Your task to perform on an android device: When is my next meeting? Image 0: 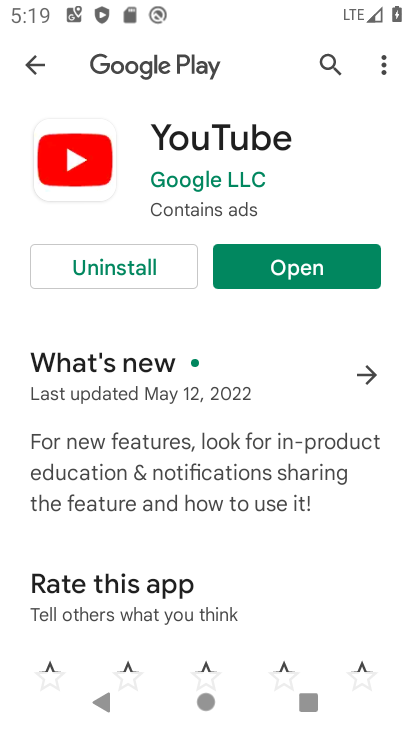
Step 0: press home button
Your task to perform on an android device: When is my next meeting? Image 1: 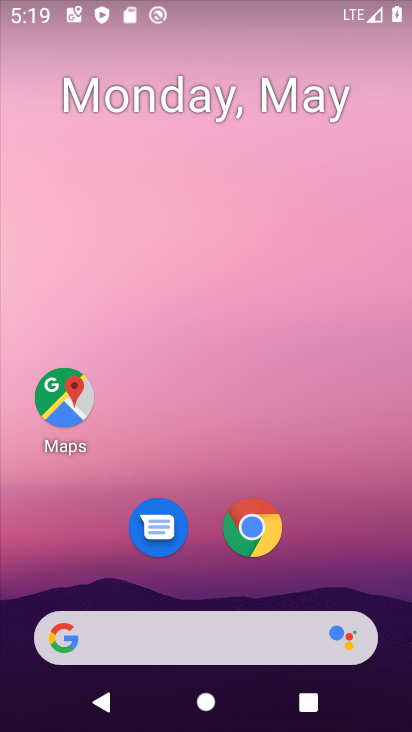
Step 1: drag from (399, 680) to (359, 199)
Your task to perform on an android device: When is my next meeting? Image 2: 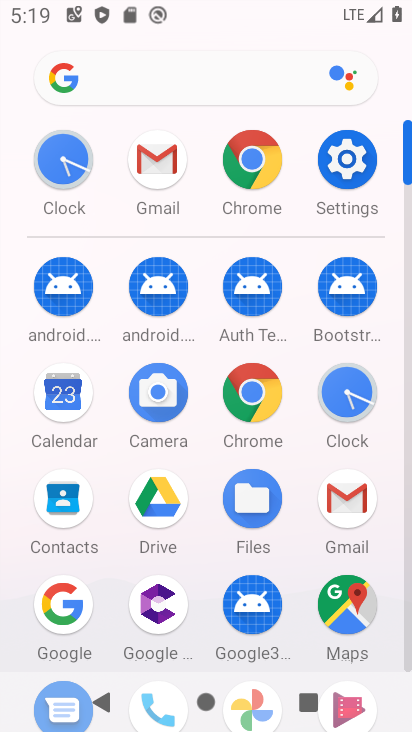
Step 2: click (68, 405)
Your task to perform on an android device: When is my next meeting? Image 3: 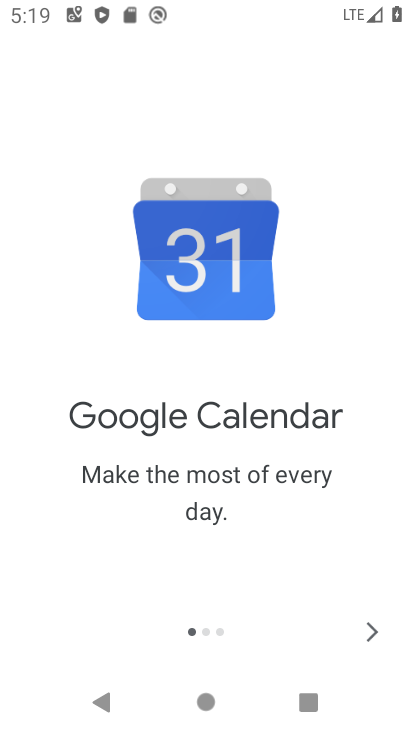
Step 3: click (370, 627)
Your task to perform on an android device: When is my next meeting? Image 4: 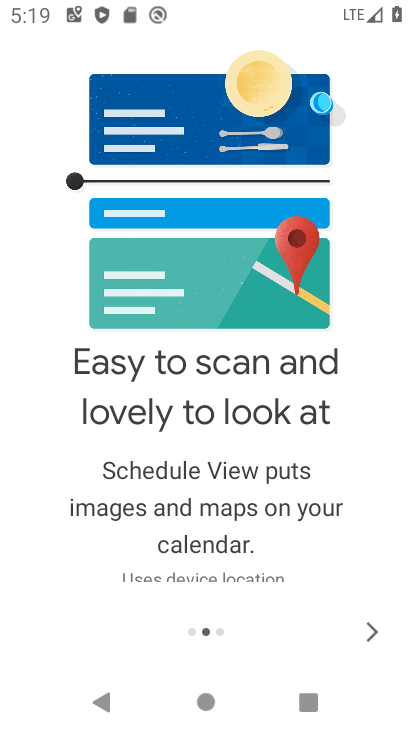
Step 4: click (370, 627)
Your task to perform on an android device: When is my next meeting? Image 5: 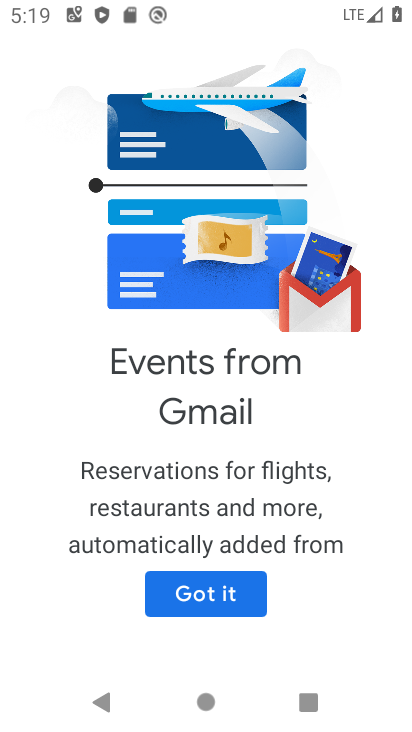
Step 5: click (196, 582)
Your task to perform on an android device: When is my next meeting? Image 6: 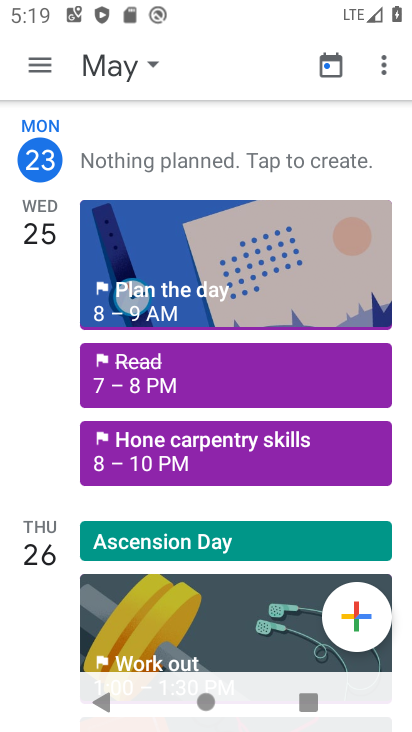
Step 6: click (42, 60)
Your task to perform on an android device: When is my next meeting? Image 7: 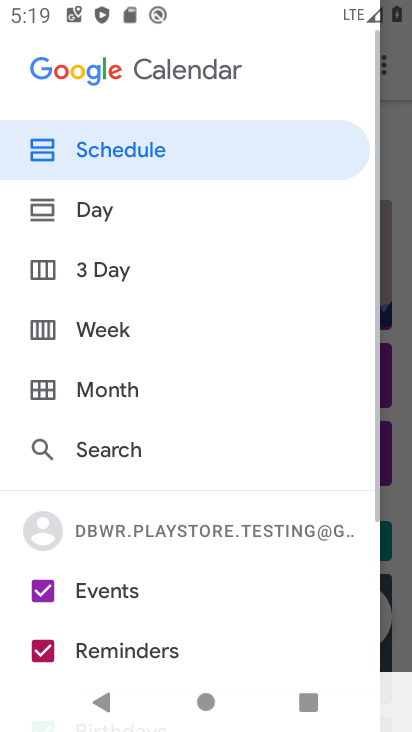
Step 7: drag from (209, 640) to (226, 229)
Your task to perform on an android device: When is my next meeting? Image 8: 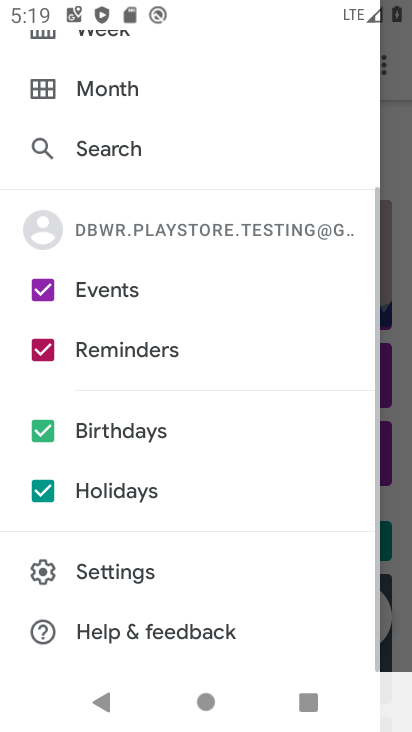
Step 8: click (41, 499)
Your task to perform on an android device: When is my next meeting? Image 9: 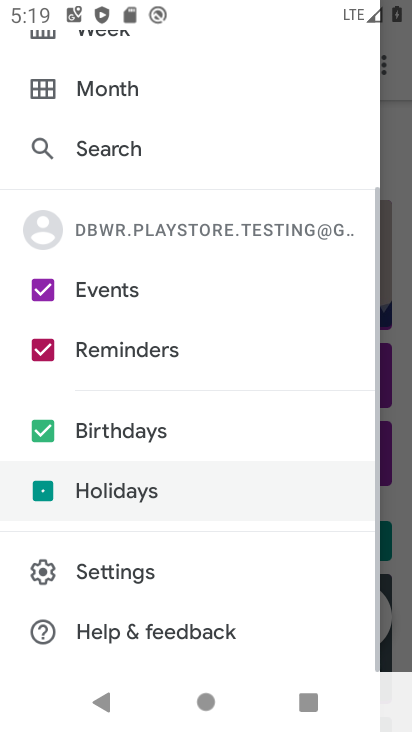
Step 9: click (42, 436)
Your task to perform on an android device: When is my next meeting? Image 10: 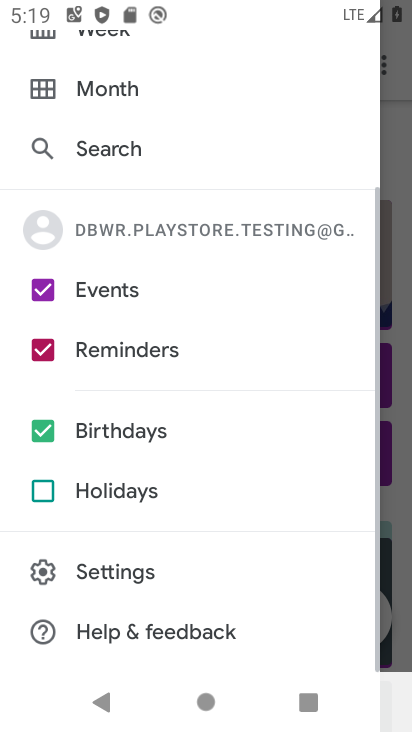
Step 10: click (45, 350)
Your task to perform on an android device: When is my next meeting? Image 11: 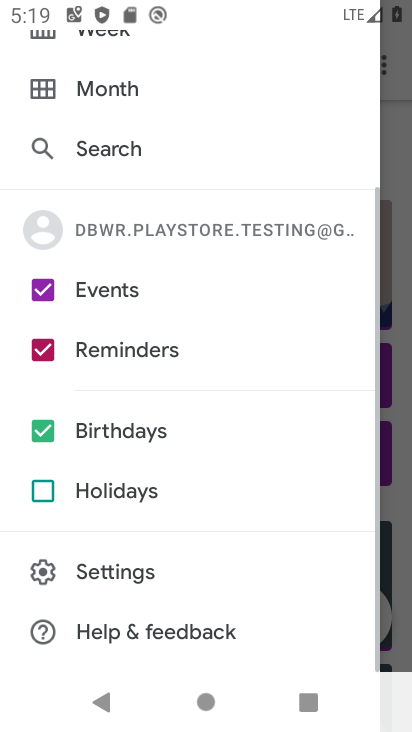
Step 11: click (40, 440)
Your task to perform on an android device: When is my next meeting? Image 12: 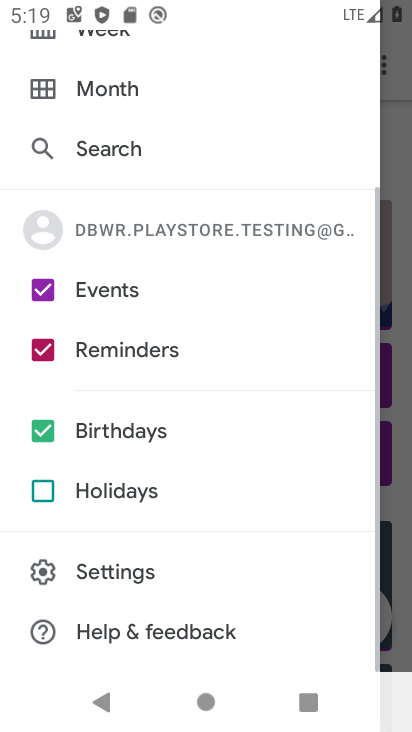
Step 12: click (47, 340)
Your task to perform on an android device: When is my next meeting? Image 13: 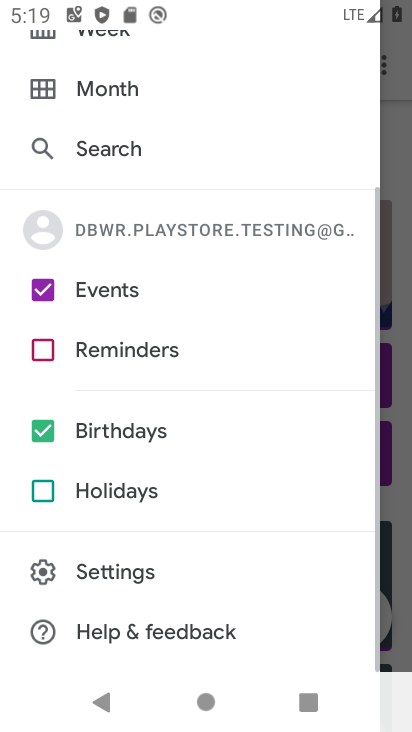
Step 13: click (43, 427)
Your task to perform on an android device: When is my next meeting? Image 14: 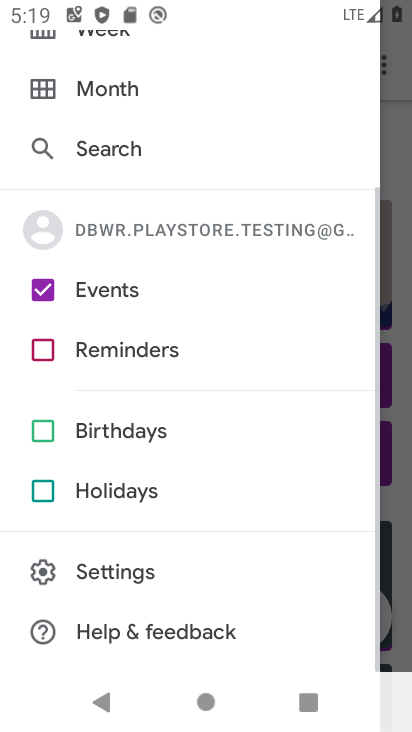
Step 14: drag from (232, 142) to (293, 602)
Your task to perform on an android device: When is my next meeting? Image 15: 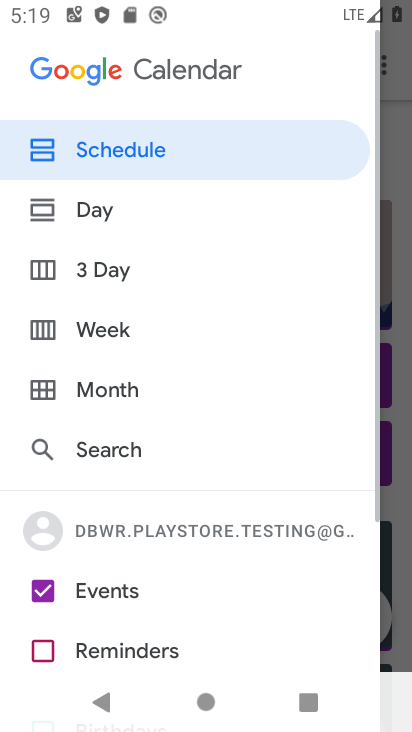
Step 15: click (113, 148)
Your task to perform on an android device: When is my next meeting? Image 16: 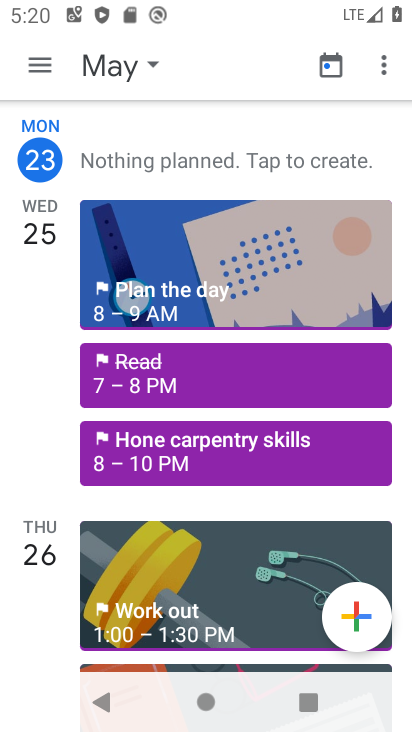
Step 16: task complete